Your task to perform on an android device: When is my next appointment? Image 0: 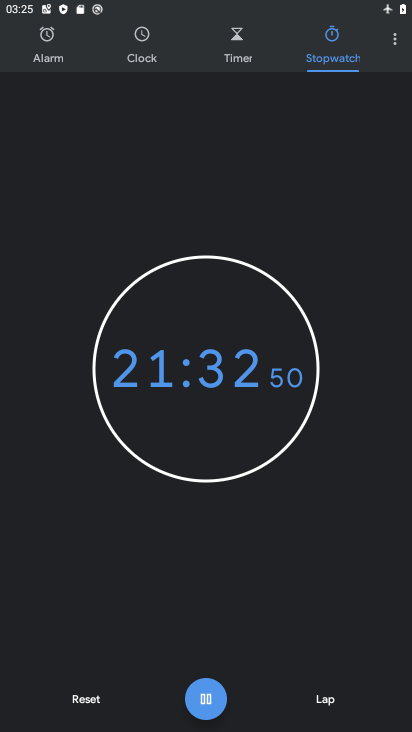
Step 0: press home button
Your task to perform on an android device: When is my next appointment? Image 1: 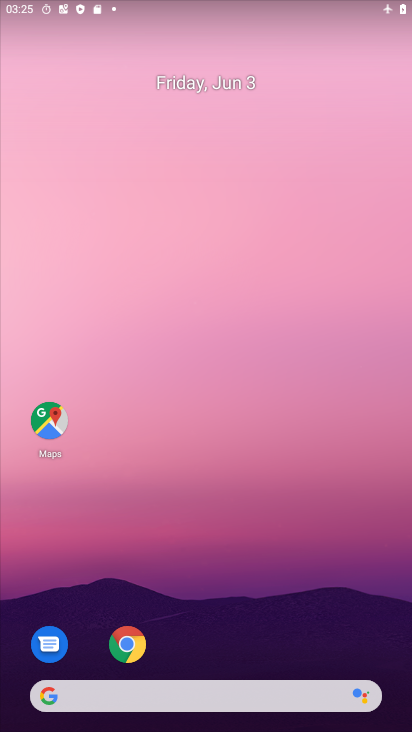
Step 1: drag from (239, 623) to (296, 170)
Your task to perform on an android device: When is my next appointment? Image 2: 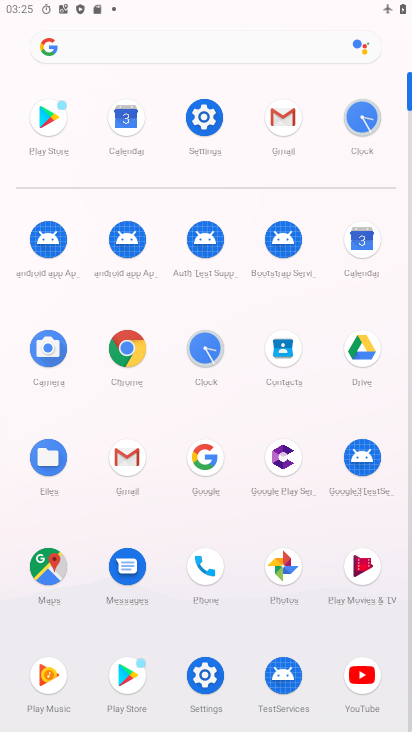
Step 2: click (134, 122)
Your task to perform on an android device: When is my next appointment? Image 3: 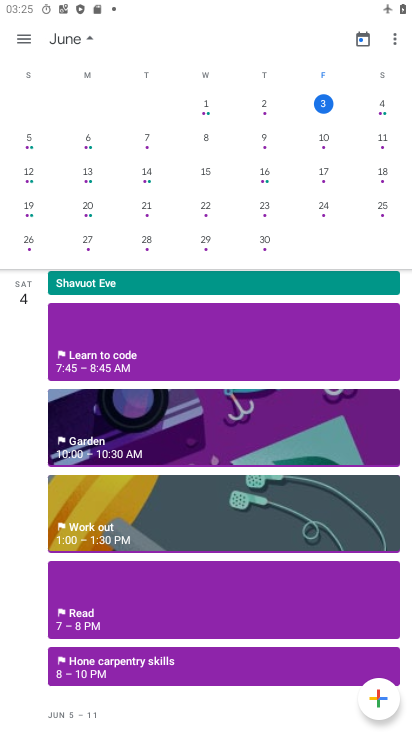
Step 3: task complete